Your task to perform on an android device: delete location history Image 0: 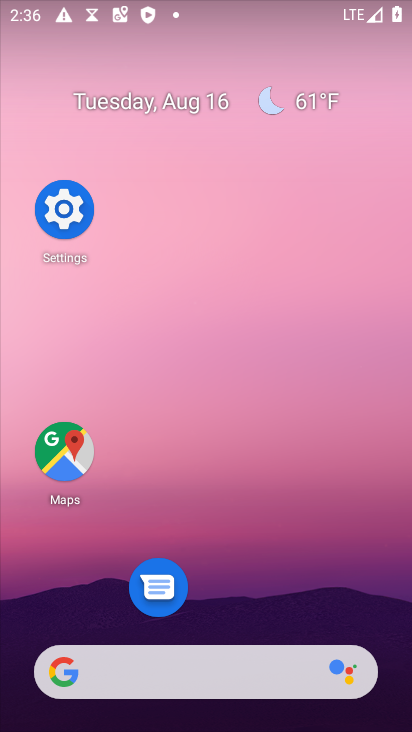
Step 0: click (47, 439)
Your task to perform on an android device: delete location history Image 1: 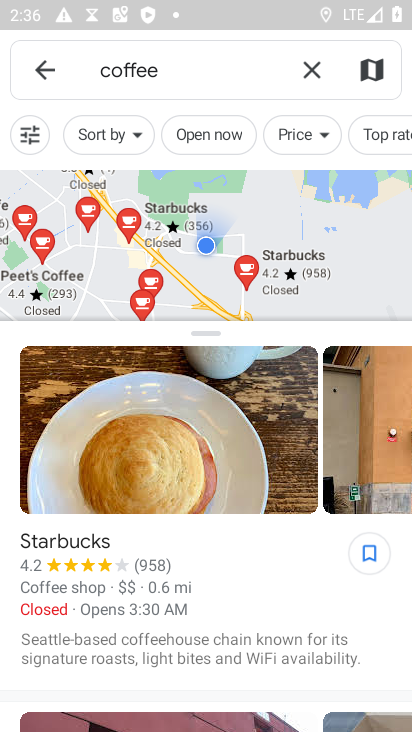
Step 1: press back button
Your task to perform on an android device: delete location history Image 2: 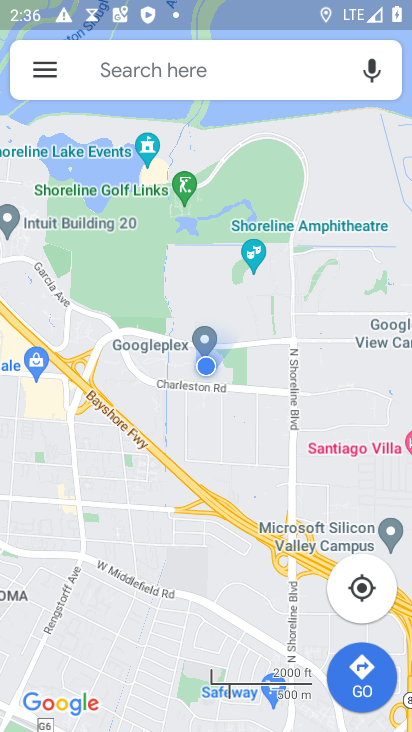
Step 2: click (33, 64)
Your task to perform on an android device: delete location history Image 3: 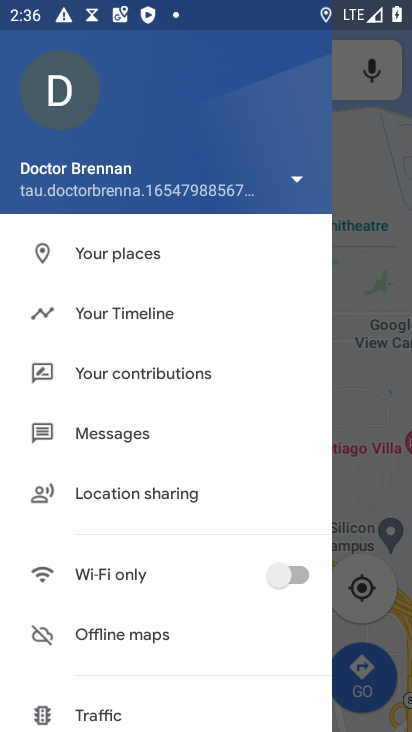
Step 3: click (168, 309)
Your task to perform on an android device: delete location history Image 4: 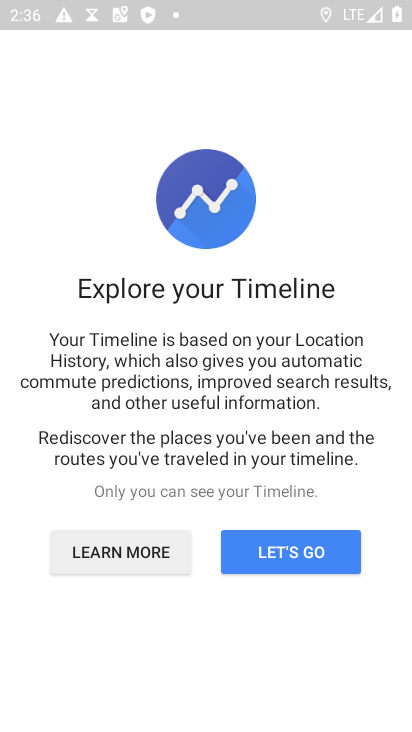
Step 4: click (287, 535)
Your task to perform on an android device: delete location history Image 5: 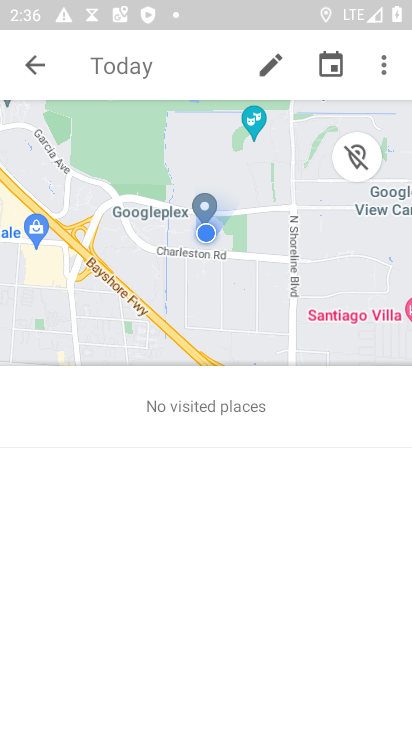
Step 5: click (379, 61)
Your task to perform on an android device: delete location history Image 6: 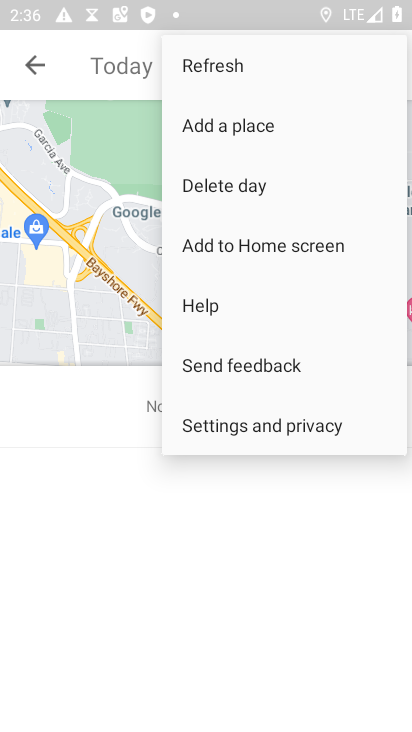
Step 6: click (240, 422)
Your task to perform on an android device: delete location history Image 7: 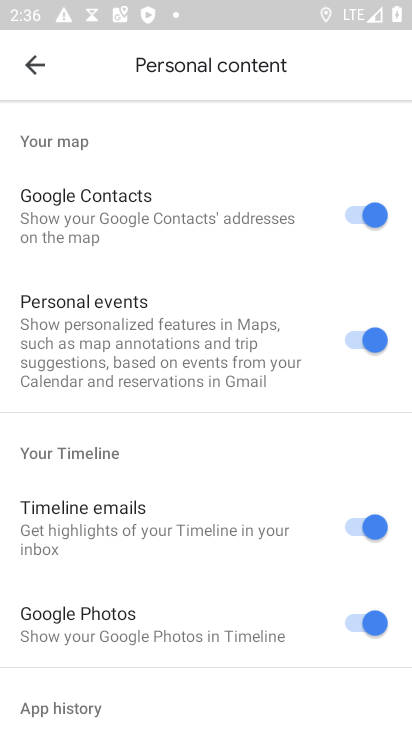
Step 7: drag from (146, 676) to (283, 105)
Your task to perform on an android device: delete location history Image 8: 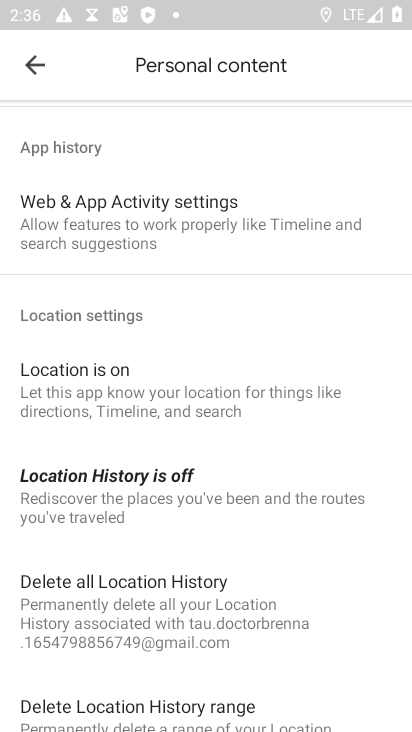
Step 8: click (138, 603)
Your task to perform on an android device: delete location history Image 9: 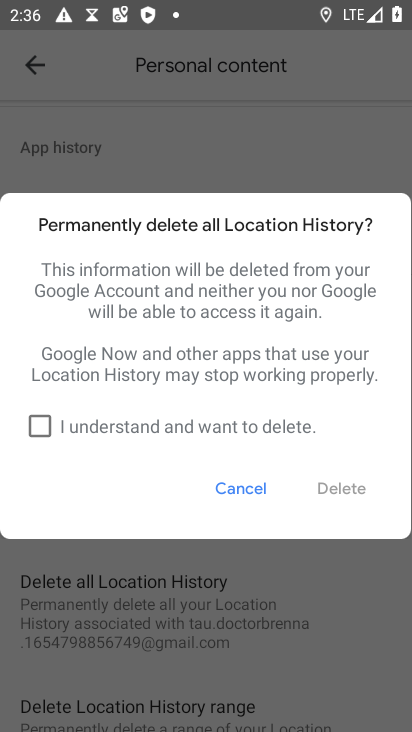
Step 9: click (35, 429)
Your task to perform on an android device: delete location history Image 10: 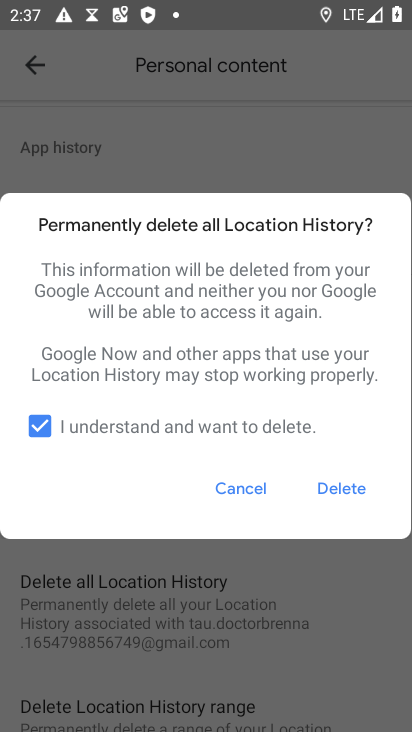
Step 10: click (335, 495)
Your task to perform on an android device: delete location history Image 11: 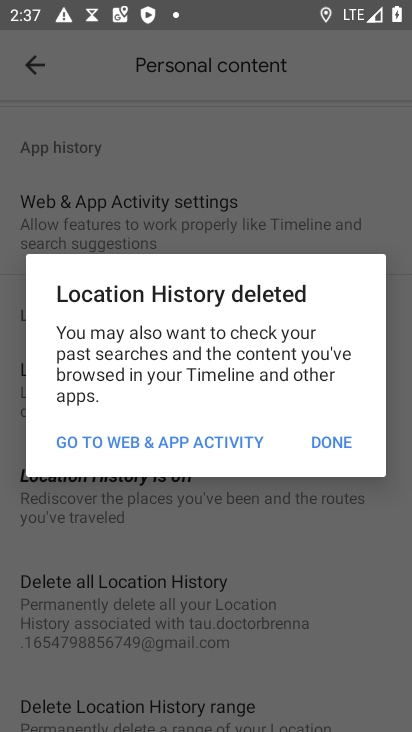
Step 11: click (311, 435)
Your task to perform on an android device: delete location history Image 12: 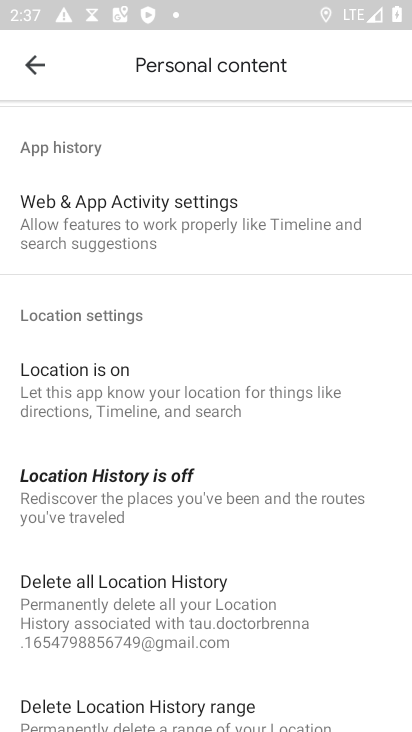
Step 12: task complete